Your task to perform on an android device: Open the stopwatch Image 0: 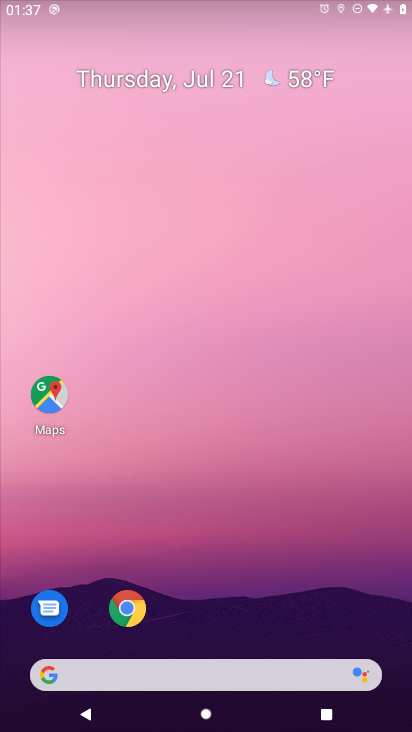
Step 0: press home button
Your task to perform on an android device: Open the stopwatch Image 1: 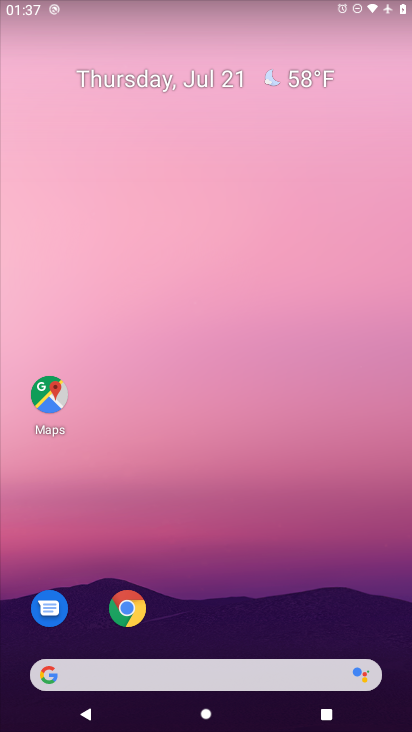
Step 1: drag from (191, 617) to (249, 0)
Your task to perform on an android device: Open the stopwatch Image 2: 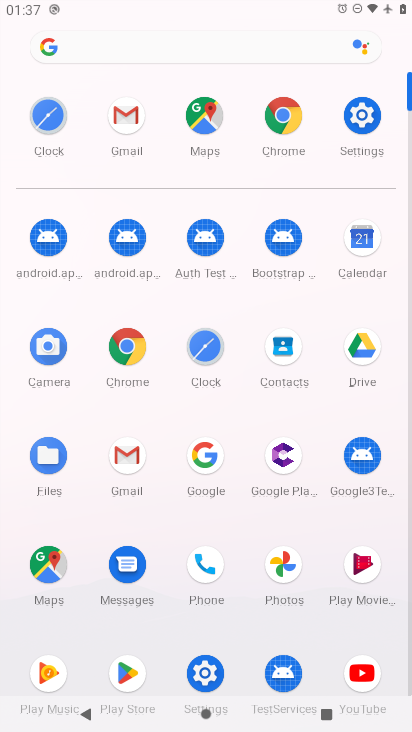
Step 2: click (208, 353)
Your task to perform on an android device: Open the stopwatch Image 3: 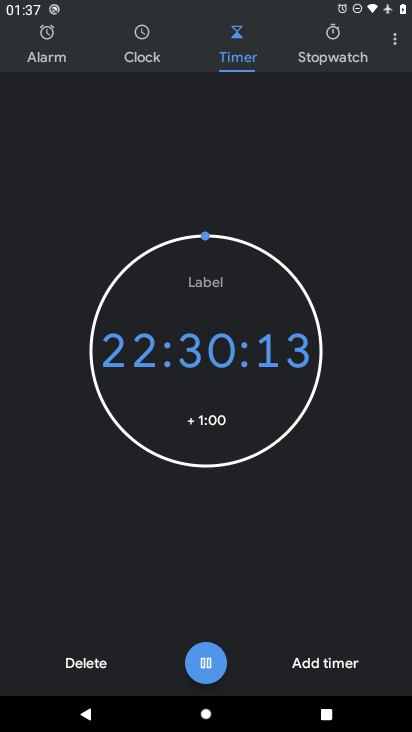
Step 3: click (329, 36)
Your task to perform on an android device: Open the stopwatch Image 4: 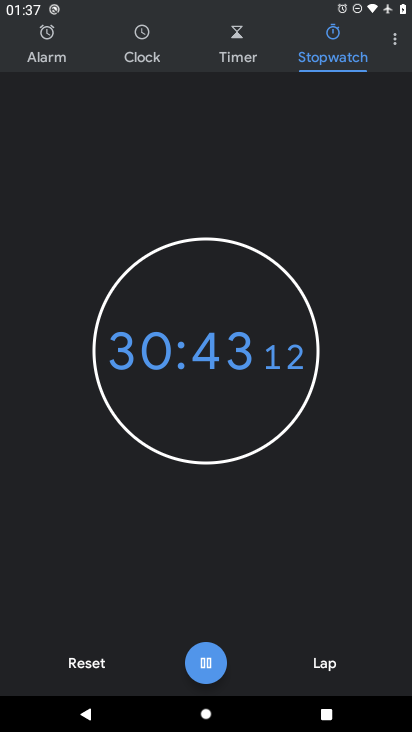
Step 4: task complete